Your task to perform on an android device: set the timer Image 0: 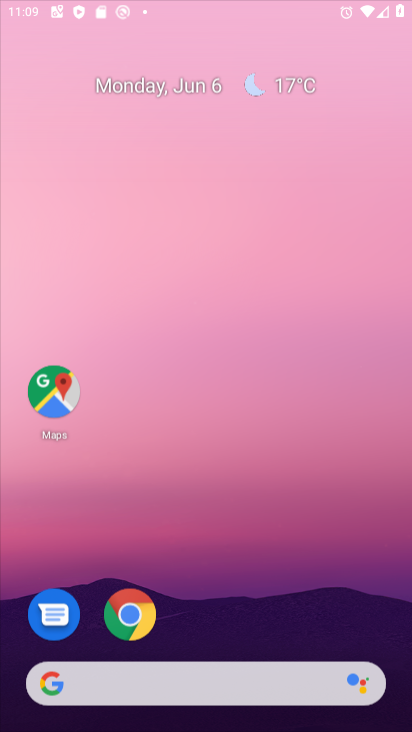
Step 0: press home button
Your task to perform on an android device: set the timer Image 1: 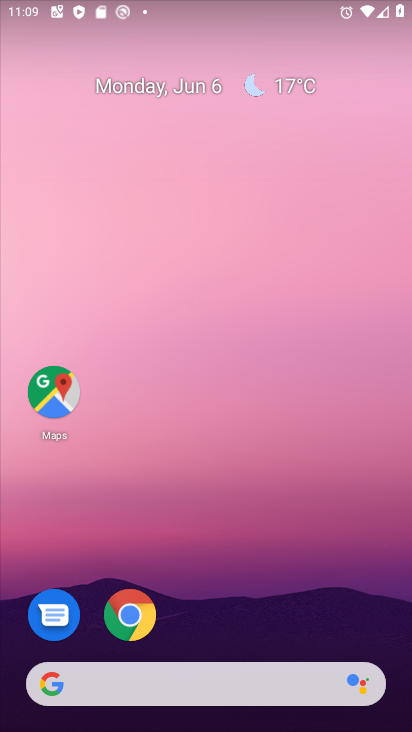
Step 1: drag from (221, 641) to (232, 11)
Your task to perform on an android device: set the timer Image 2: 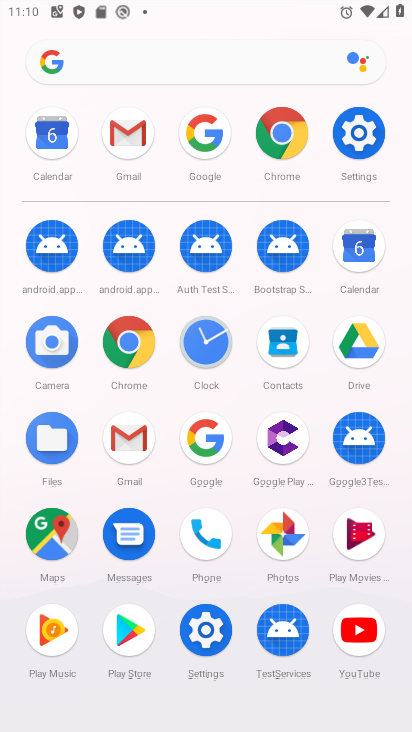
Step 2: click (206, 334)
Your task to perform on an android device: set the timer Image 3: 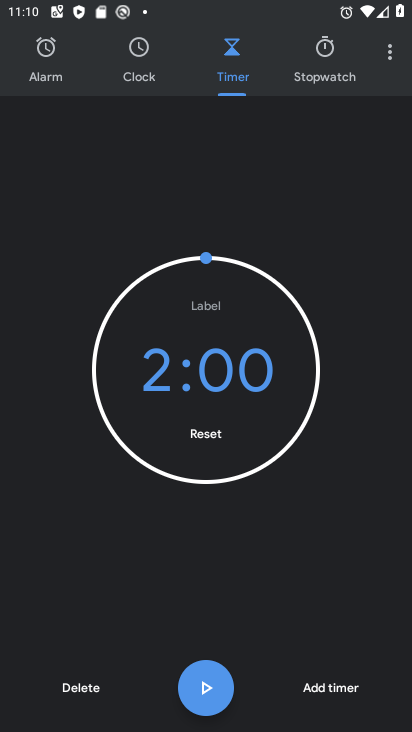
Step 3: click (203, 680)
Your task to perform on an android device: set the timer Image 4: 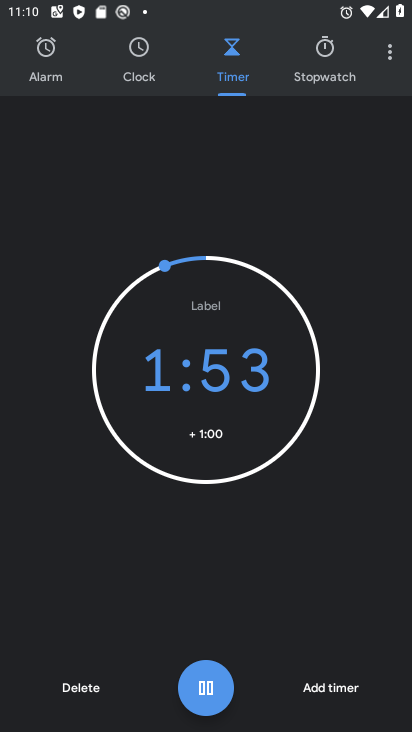
Step 4: task complete